Your task to perform on an android device: check google app version Image 0: 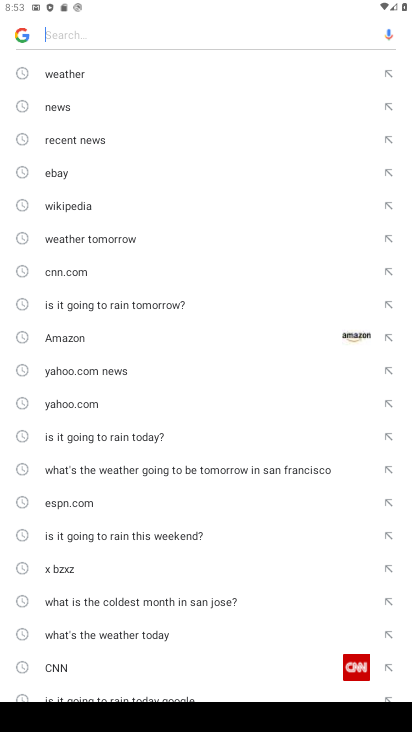
Step 0: press back button
Your task to perform on an android device: check google app version Image 1: 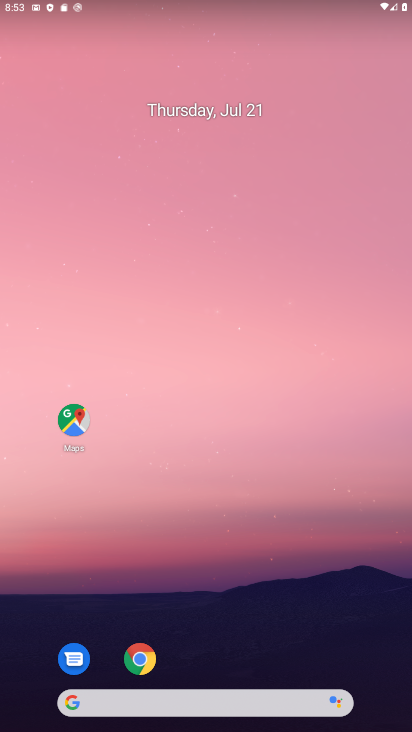
Step 1: drag from (234, 686) to (195, 0)
Your task to perform on an android device: check google app version Image 2: 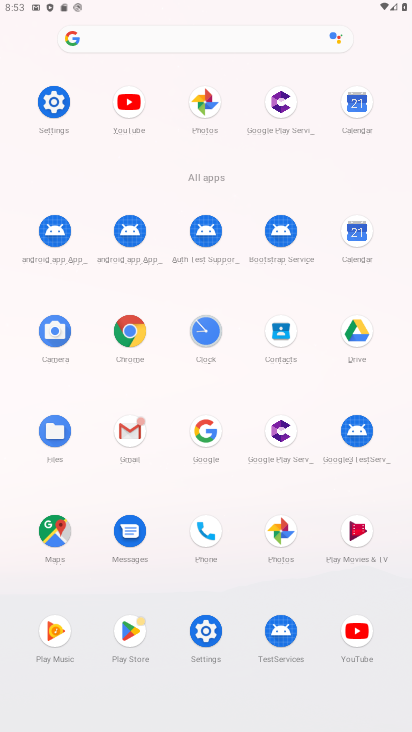
Step 2: click (211, 430)
Your task to perform on an android device: check google app version Image 3: 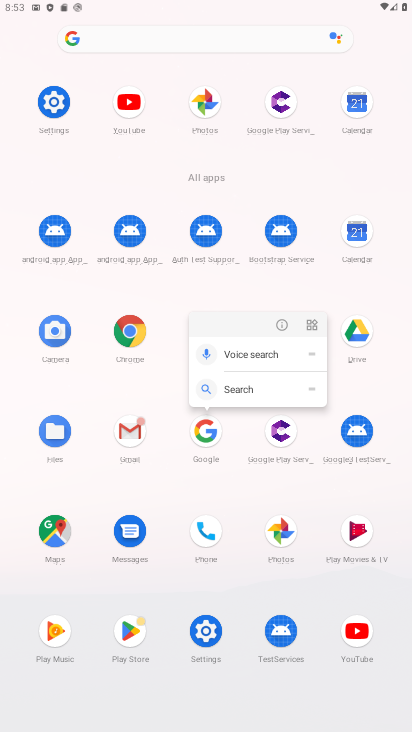
Step 3: click (278, 321)
Your task to perform on an android device: check google app version Image 4: 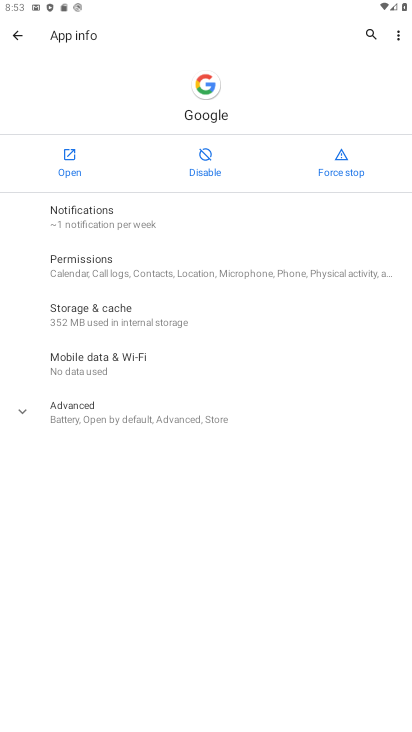
Step 4: click (109, 407)
Your task to perform on an android device: check google app version Image 5: 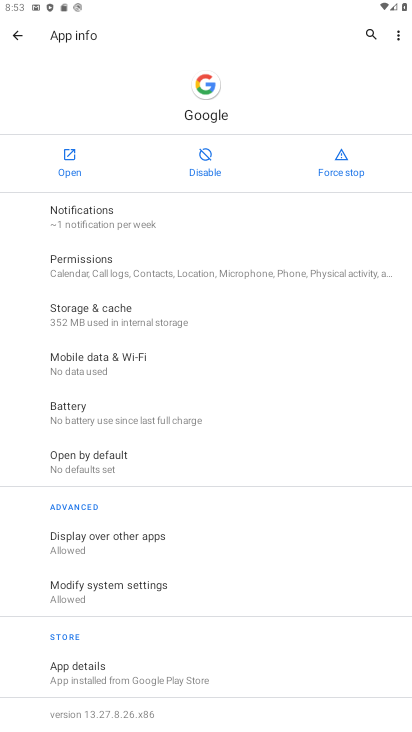
Step 5: task complete